Your task to perform on an android device: Open Google Image 0: 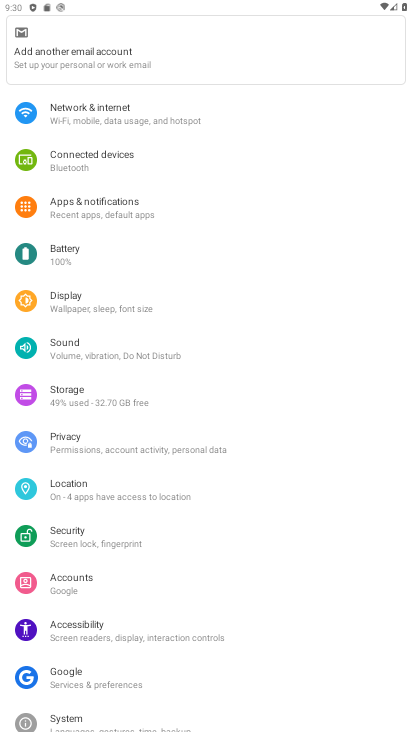
Step 0: press home button
Your task to perform on an android device: Open Google Image 1: 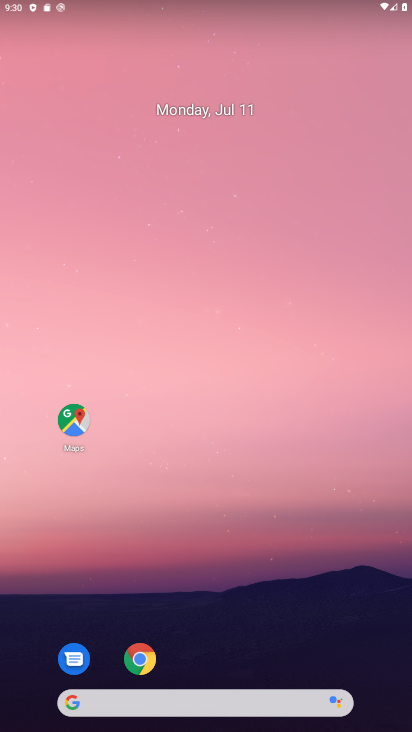
Step 1: drag from (253, 635) to (160, 46)
Your task to perform on an android device: Open Google Image 2: 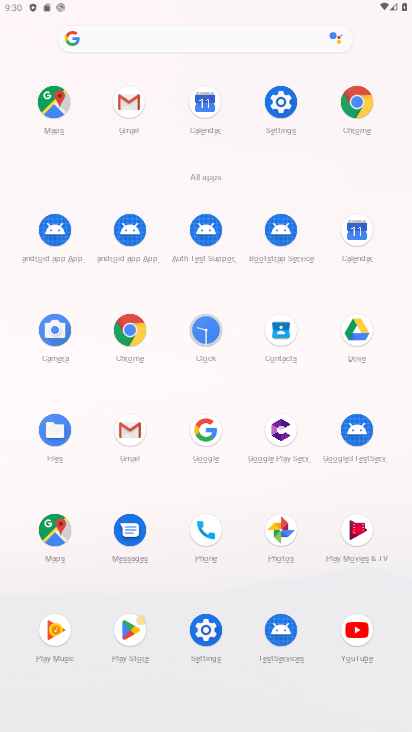
Step 2: click (59, 532)
Your task to perform on an android device: Open Google Image 3: 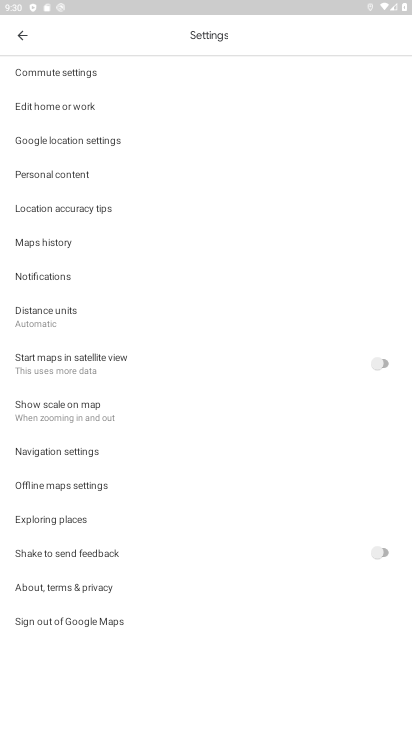
Step 3: task complete